Your task to perform on an android device: Show me recent news Image 0: 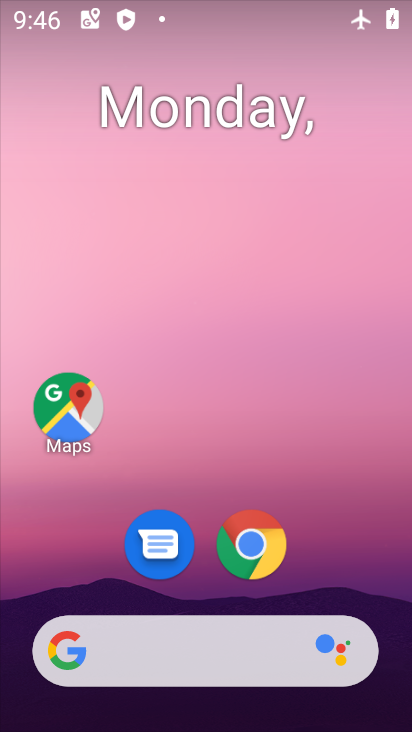
Step 0: drag from (4, 222) to (5, 544)
Your task to perform on an android device: Show me recent news Image 1: 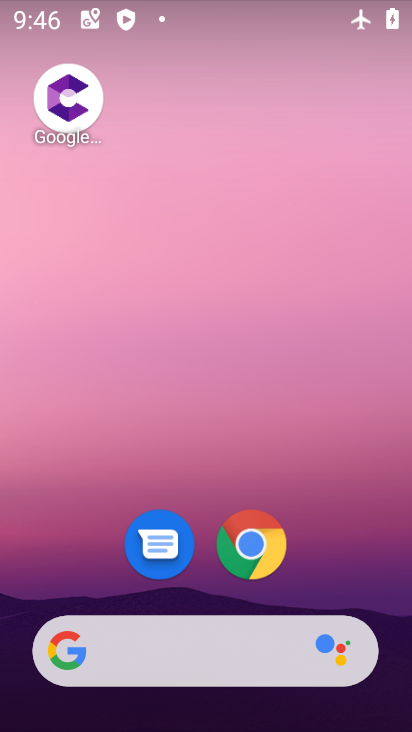
Step 1: task complete